Your task to perform on an android device: check storage Image 0: 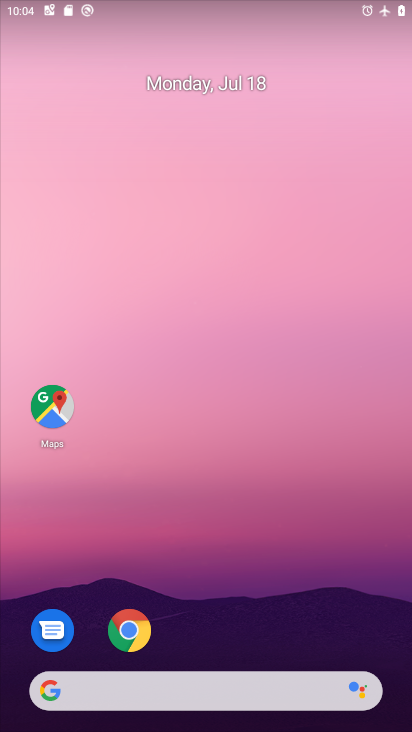
Step 0: drag from (229, 568) to (231, 166)
Your task to perform on an android device: check storage Image 1: 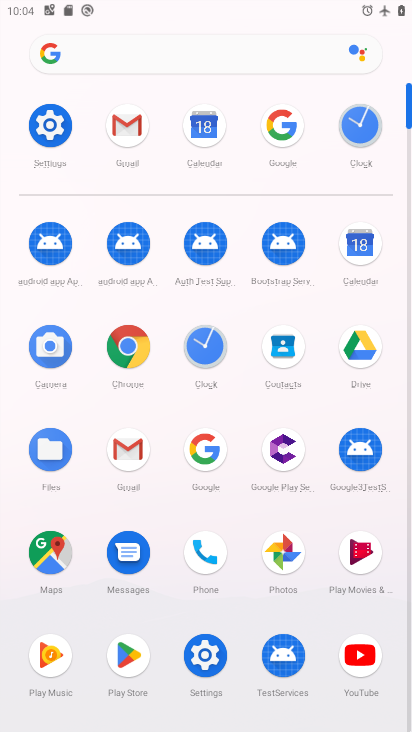
Step 1: click (54, 133)
Your task to perform on an android device: check storage Image 2: 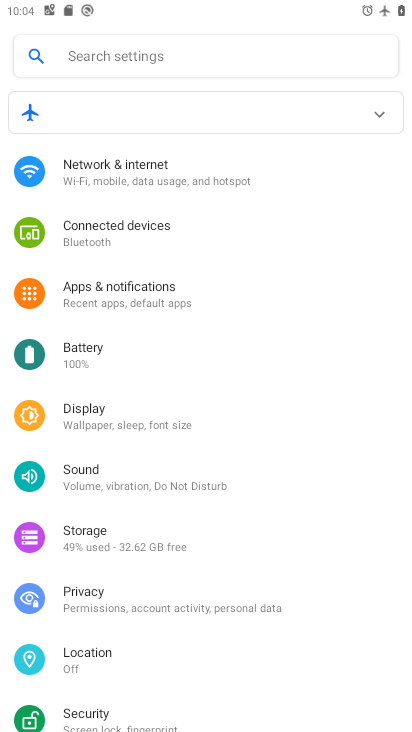
Step 2: click (123, 536)
Your task to perform on an android device: check storage Image 3: 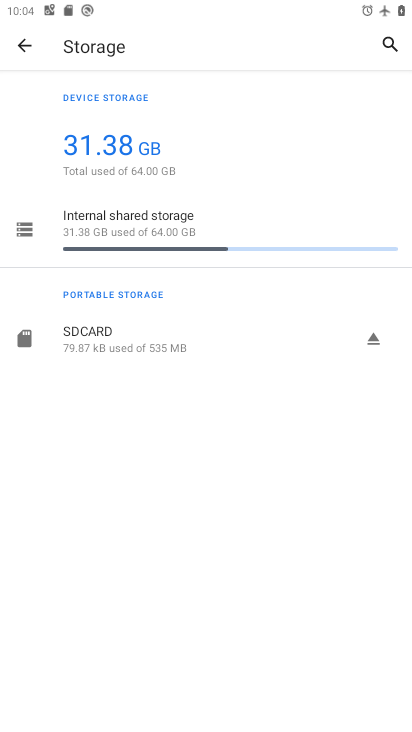
Step 3: click (151, 342)
Your task to perform on an android device: check storage Image 4: 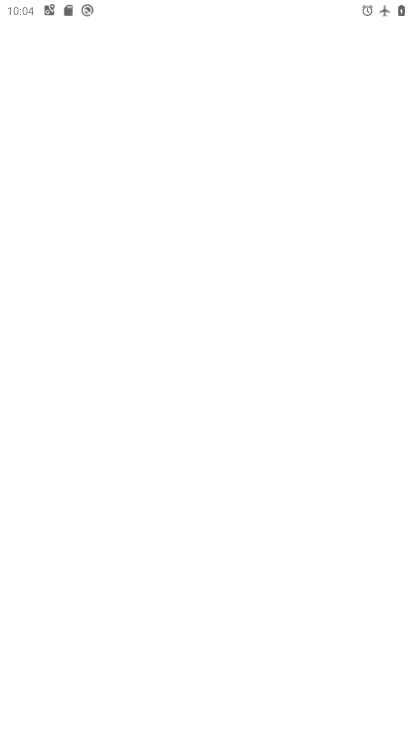
Step 4: task complete